Your task to perform on an android device: change your default location settings in chrome Image 0: 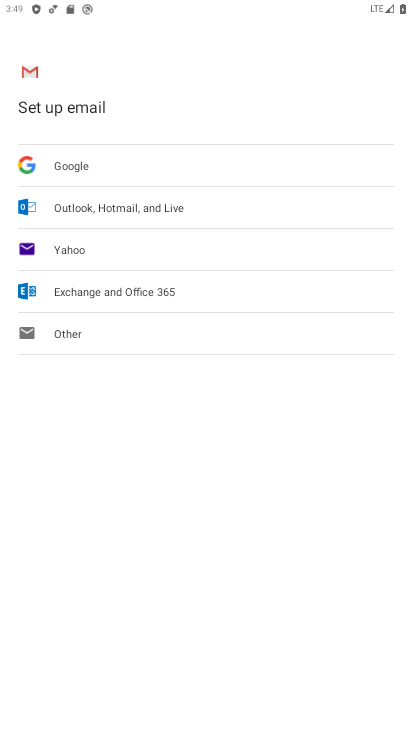
Step 0: press home button
Your task to perform on an android device: change your default location settings in chrome Image 1: 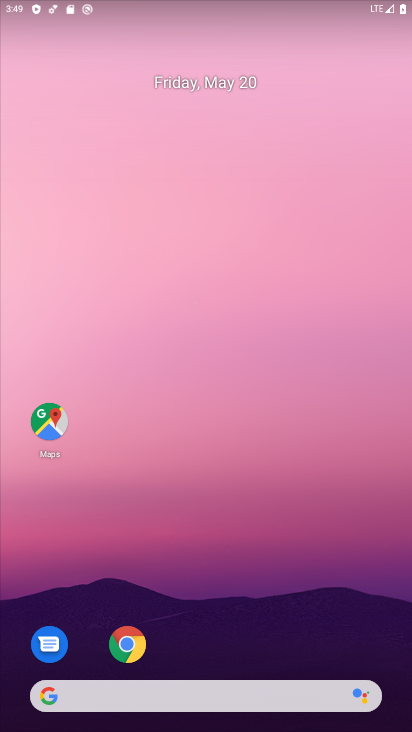
Step 1: drag from (273, 731) to (284, 325)
Your task to perform on an android device: change your default location settings in chrome Image 2: 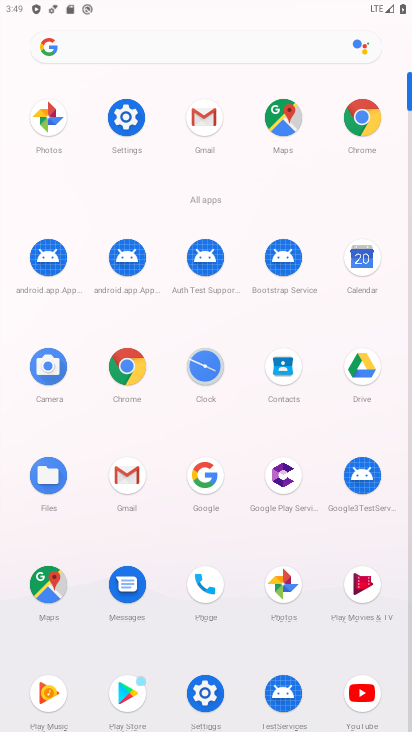
Step 2: click (119, 372)
Your task to perform on an android device: change your default location settings in chrome Image 3: 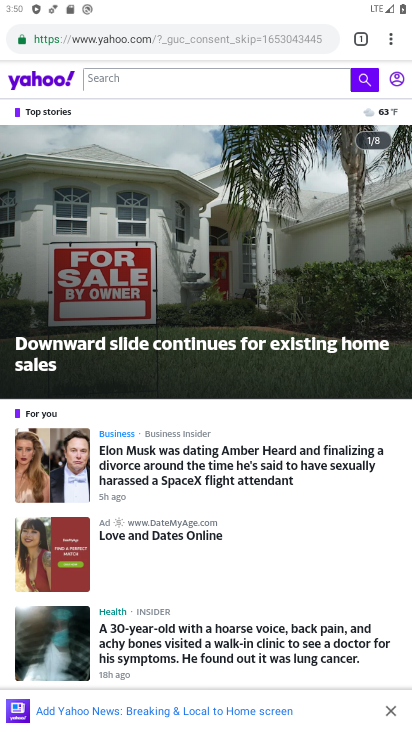
Step 3: click (388, 41)
Your task to perform on an android device: change your default location settings in chrome Image 4: 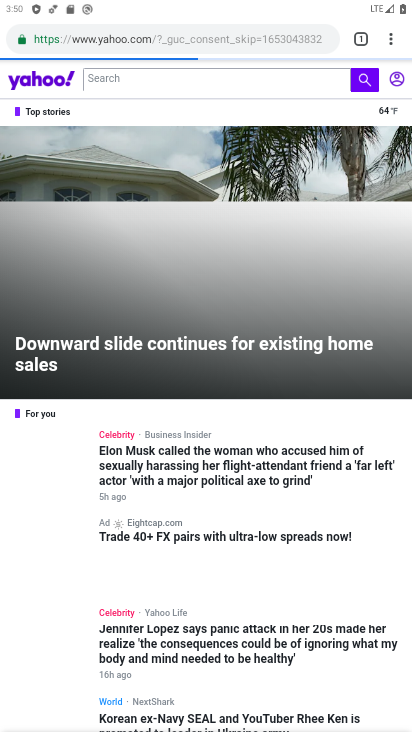
Step 4: click (382, 46)
Your task to perform on an android device: change your default location settings in chrome Image 5: 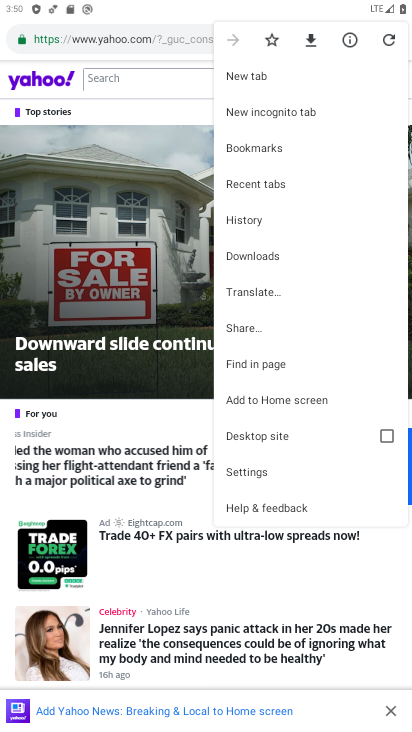
Step 5: click (247, 475)
Your task to perform on an android device: change your default location settings in chrome Image 6: 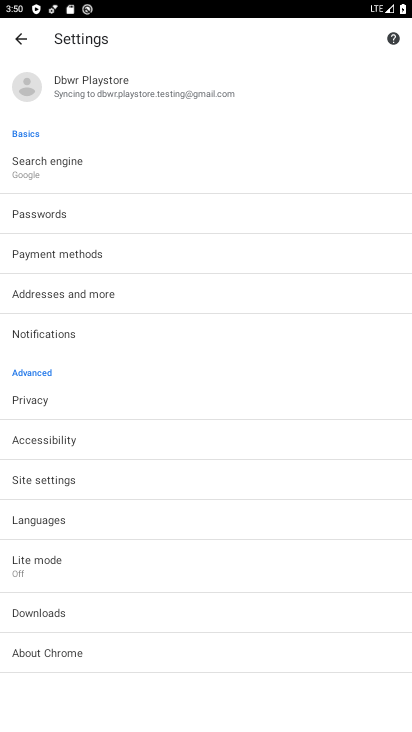
Step 6: click (75, 482)
Your task to perform on an android device: change your default location settings in chrome Image 7: 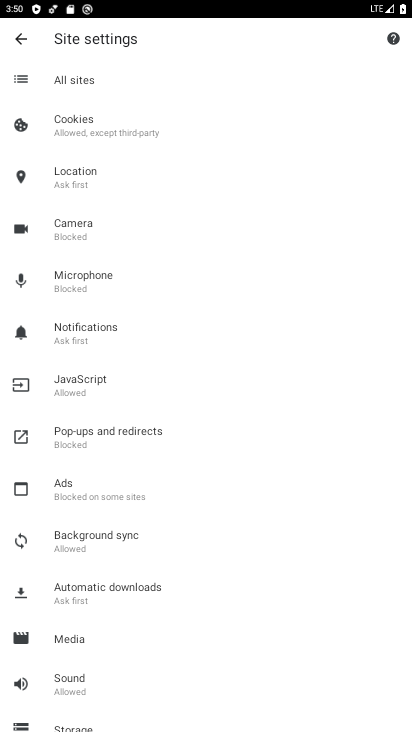
Step 7: click (94, 188)
Your task to perform on an android device: change your default location settings in chrome Image 8: 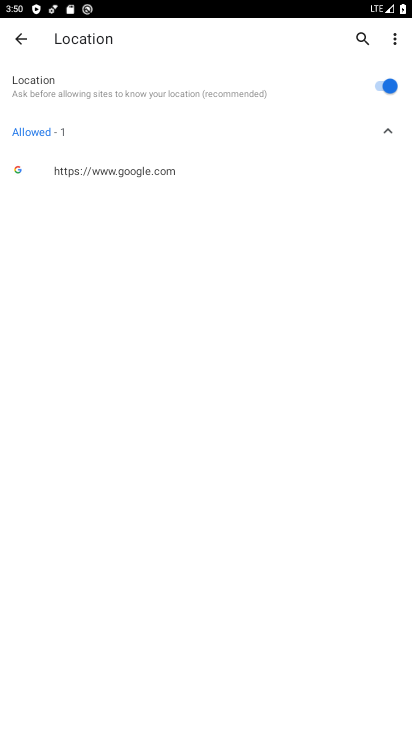
Step 8: task complete